Your task to perform on an android device: Open notification settings Image 0: 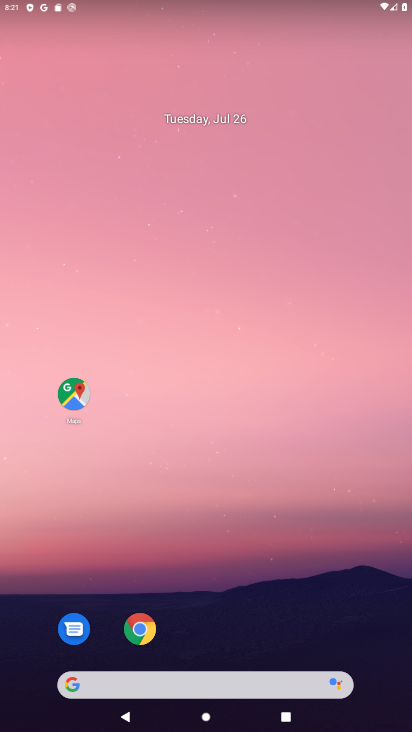
Step 0: drag from (287, 637) to (277, 380)
Your task to perform on an android device: Open notification settings Image 1: 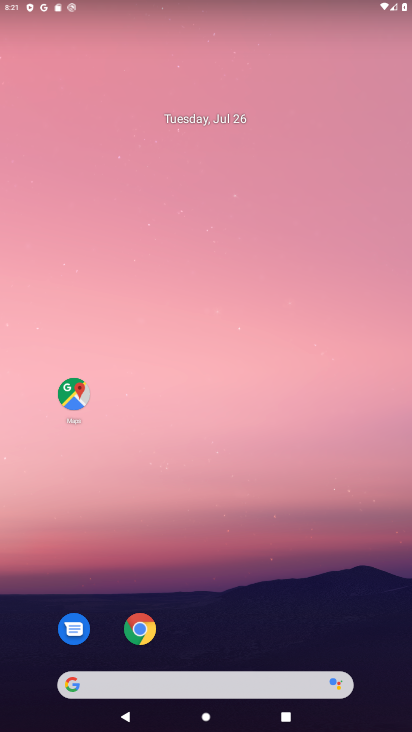
Step 1: drag from (299, 629) to (254, 132)
Your task to perform on an android device: Open notification settings Image 2: 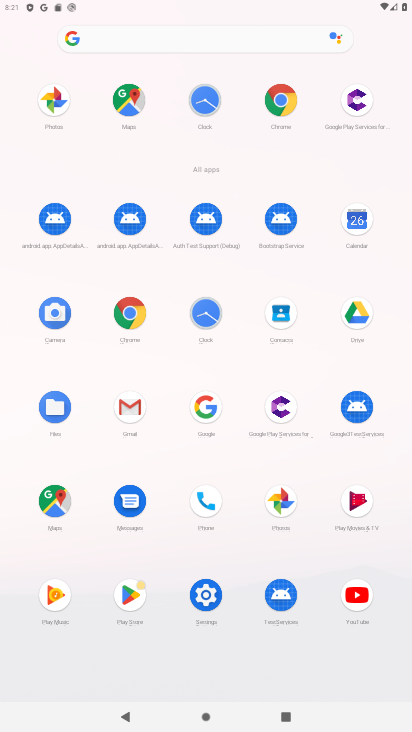
Step 2: click (207, 599)
Your task to perform on an android device: Open notification settings Image 3: 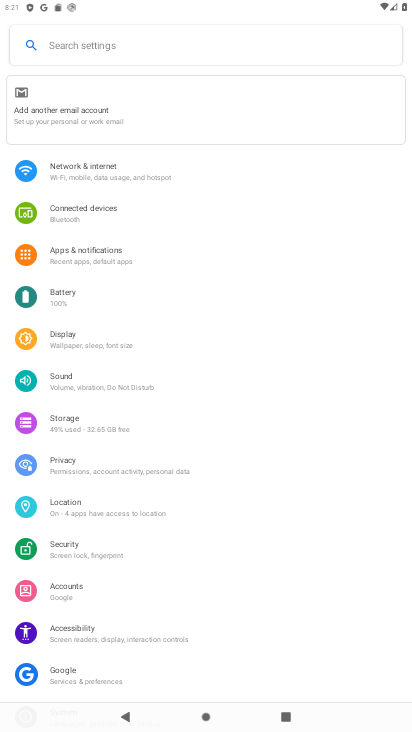
Step 3: click (89, 265)
Your task to perform on an android device: Open notification settings Image 4: 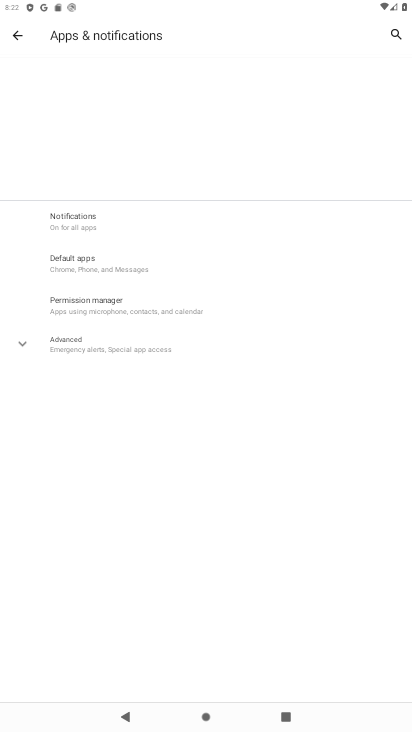
Step 4: click (54, 218)
Your task to perform on an android device: Open notification settings Image 5: 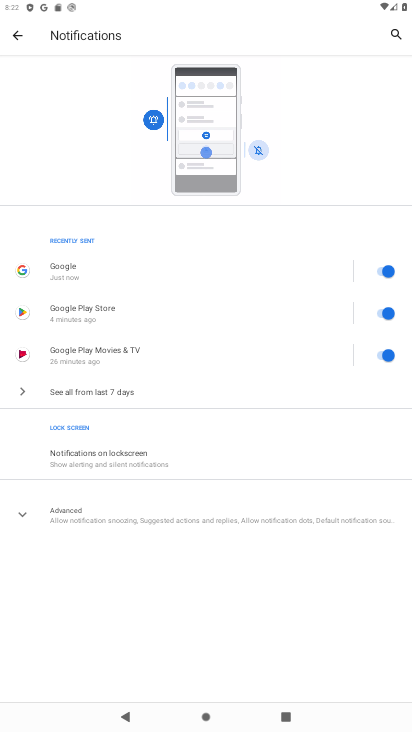
Step 5: task complete